Your task to perform on an android device: turn off sleep mode Image 0: 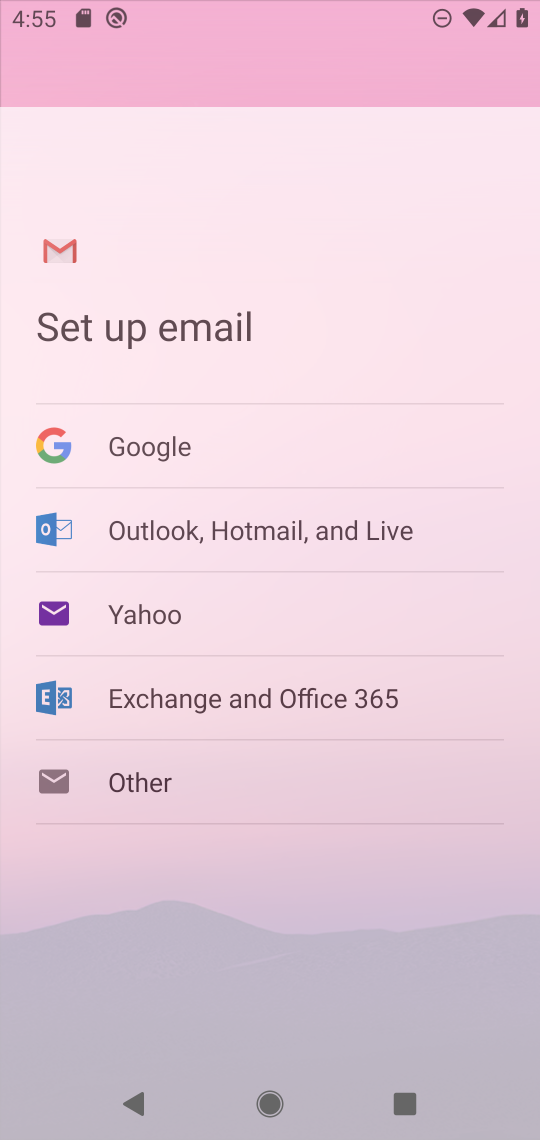
Step 0: press home button
Your task to perform on an android device: turn off sleep mode Image 1: 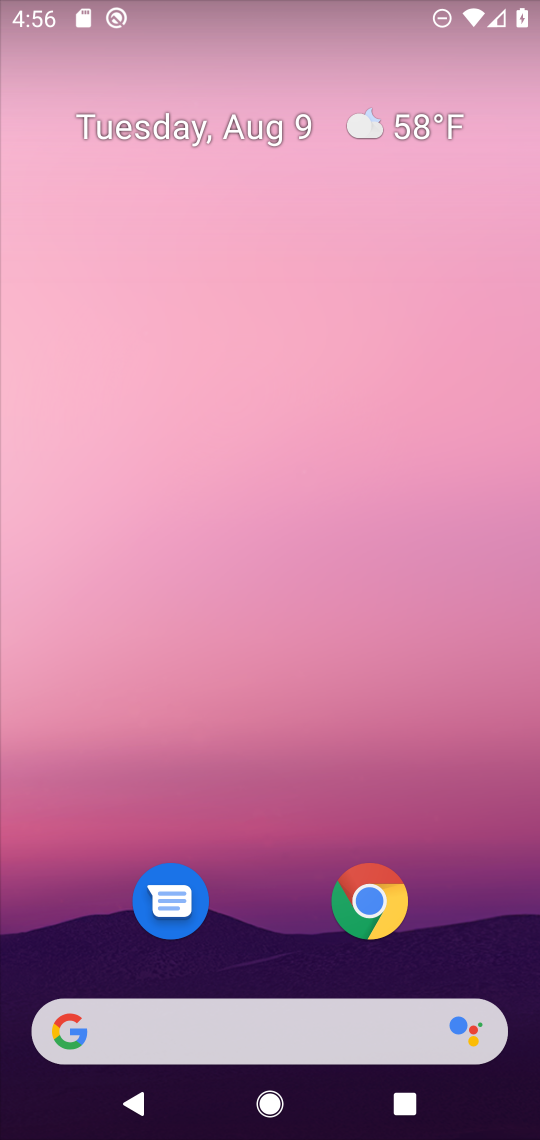
Step 1: drag from (219, 938) to (245, 159)
Your task to perform on an android device: turn off sleep mode Image 2: 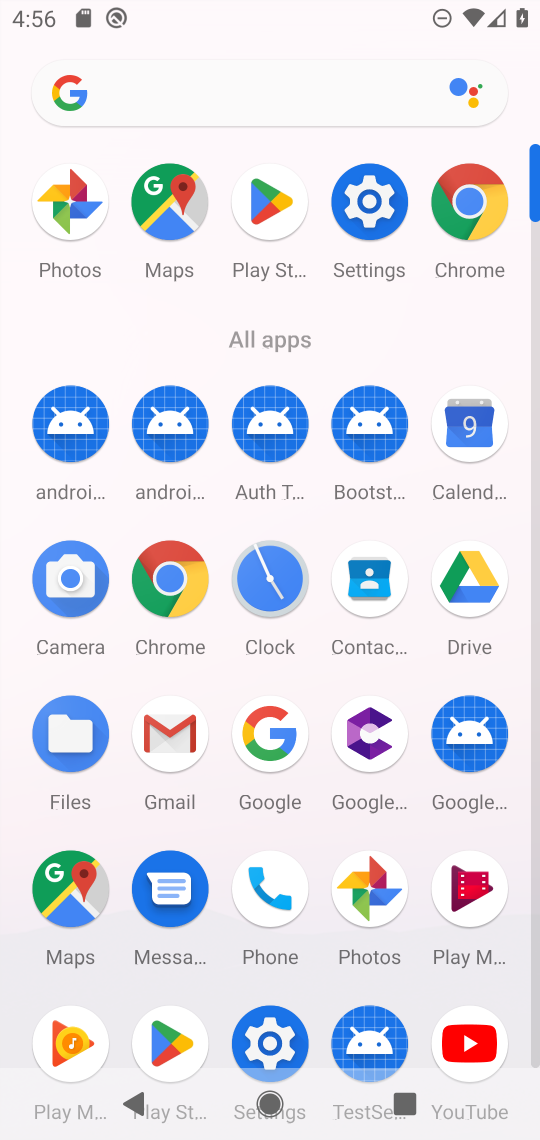
Step 2: click (351, 240)
Your task to perform on an android device: turn off sleep mode Image 3: 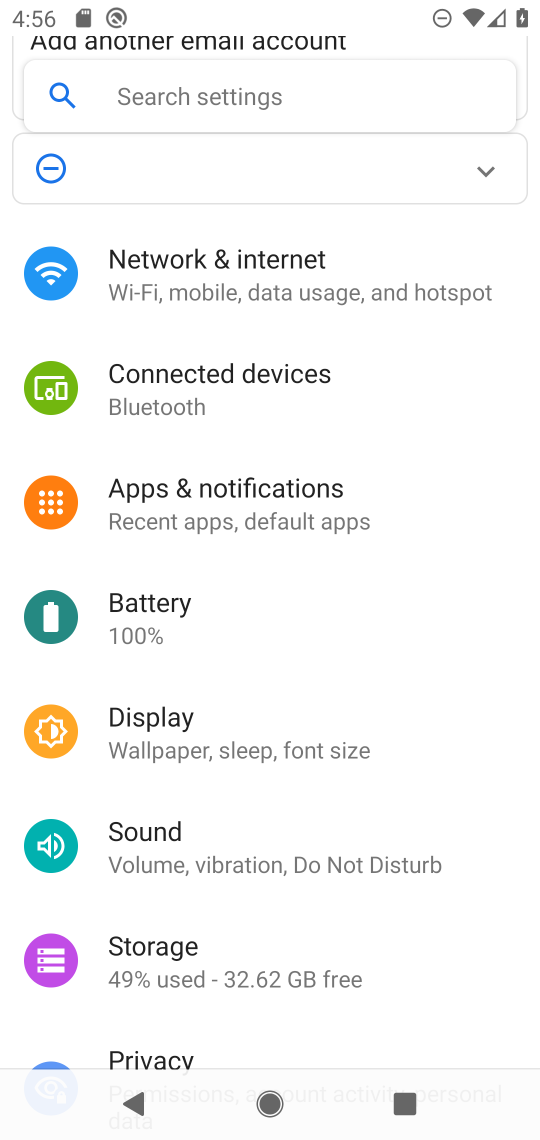
Step 3: click (197, 728)
Your task to perform on an android device: turn off sleep mode Image 4: 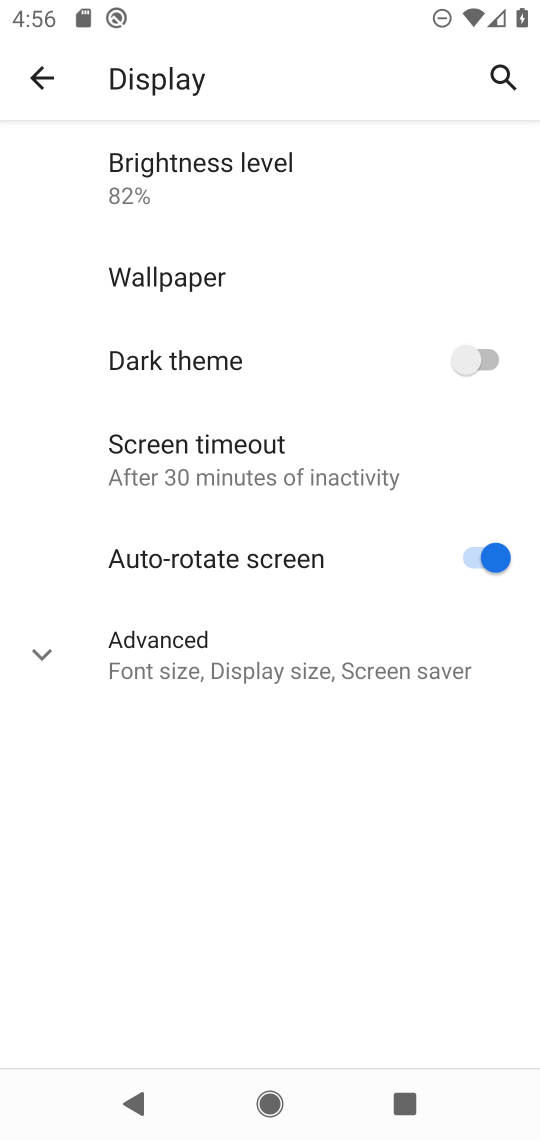
Step 4: task complete